Your task to perform on an android device: Is it going to rain tomorrow? Image 0: 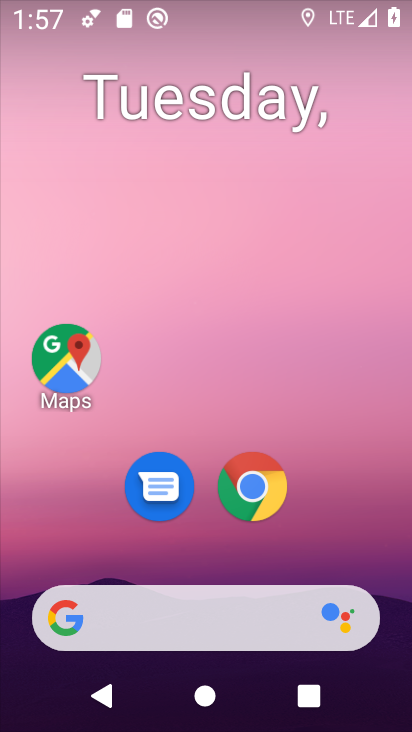
Step 0: click (221, 609)
Your task to perform on an android device: Is it going to rain tomorrow? Image 1: 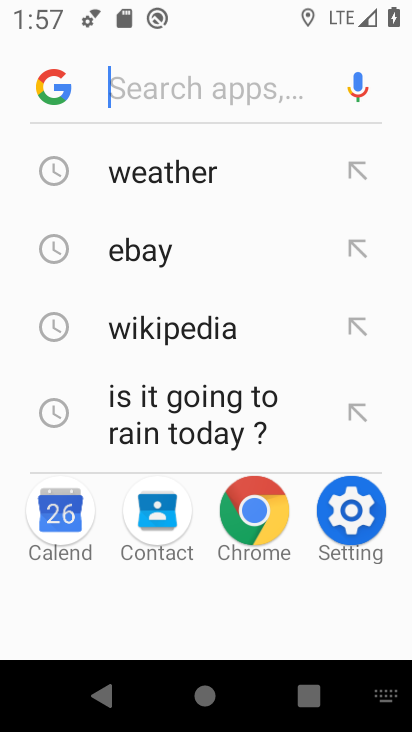
Step 1: click (238, 174)
Your task to perform on an android device: Is it going to rain tomorrow? Image 2: 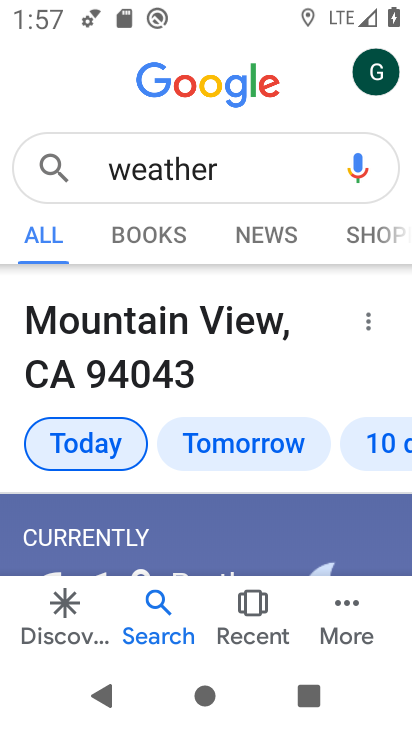
Step 2: click (238, 446)
Your task to perform on an android device: Is it going to rain tomorrow? Image 3: 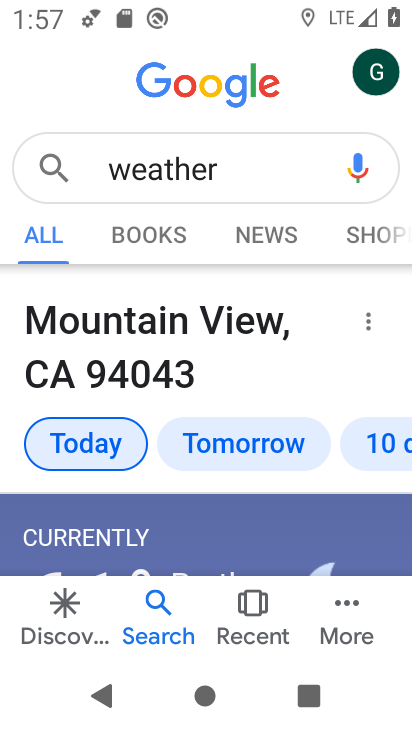
Step 3: click (267, 438)
Your task to perform on an android device: Is it going to rain tomorrow? Image 4: 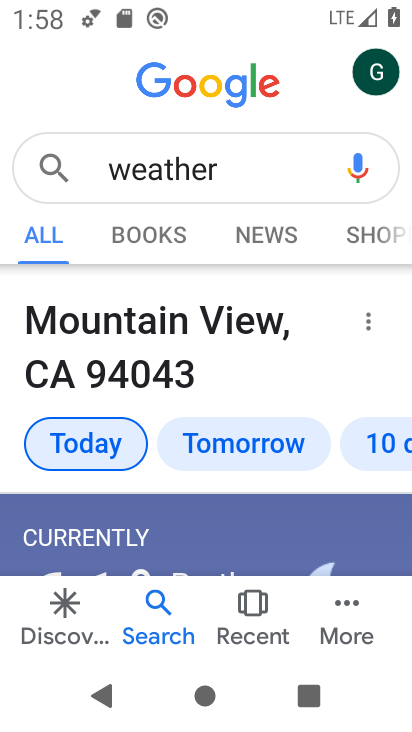
Step 4: task complete